Your task to perform on an android device: visit the assistant section in the google photos Image 0: 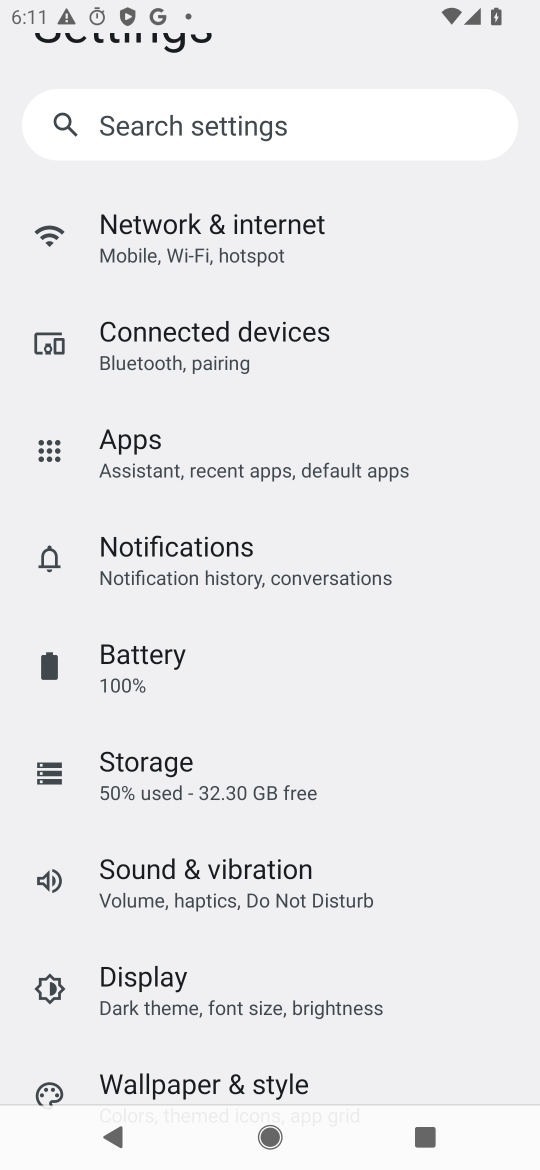
Step 0: press home button
Your task to perform on an android device: visit the assistant section in the google photos Image 1: 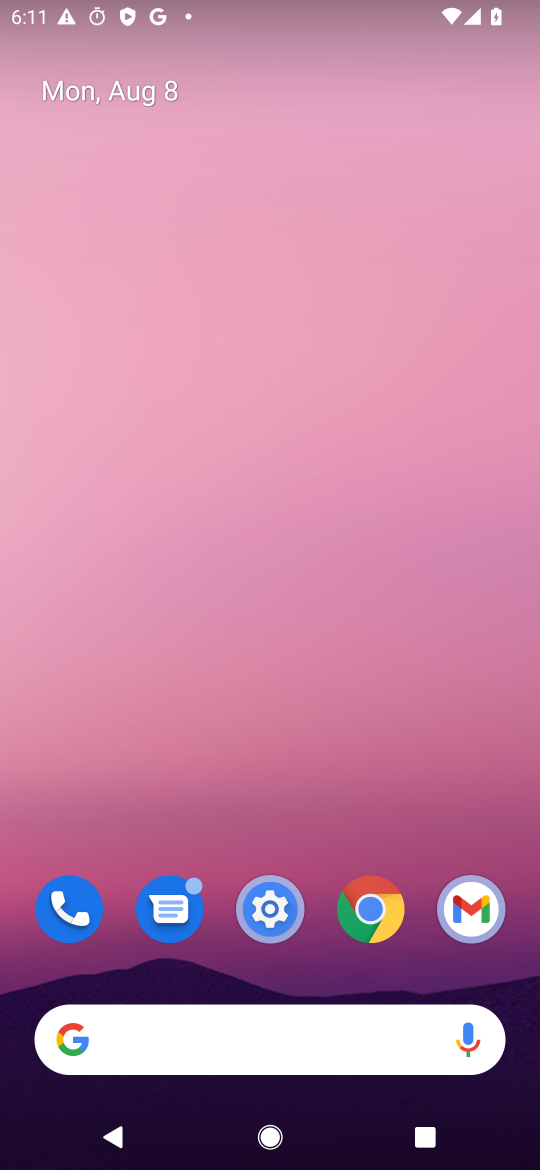
Step 1: drag from (310, 964) to (474, 255)
Your task to perform on an android device: visit the assistant section in the google photos Image 2: 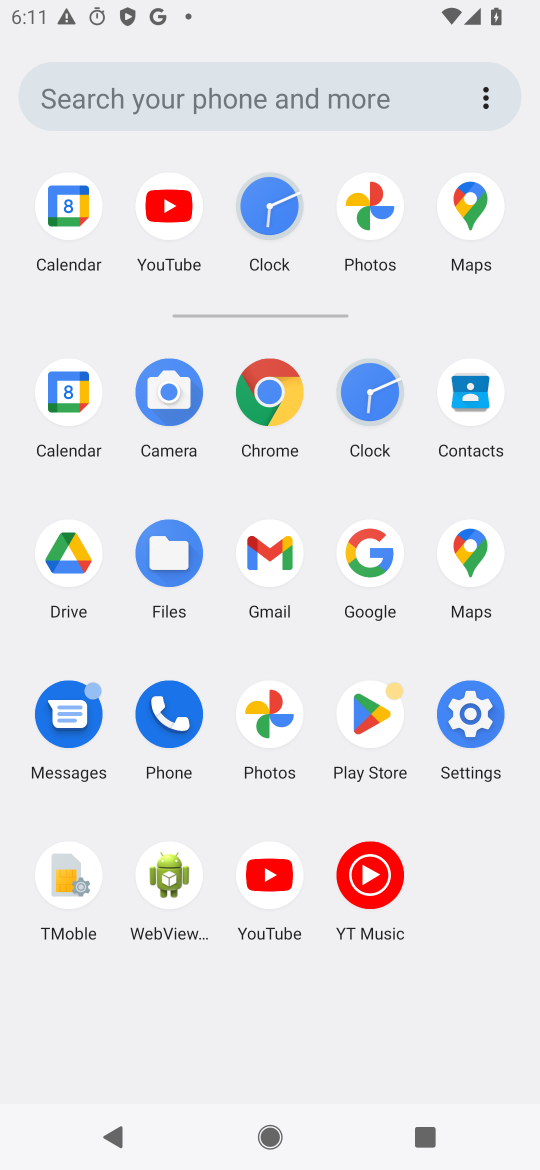
Step 2: click (269, 721)
Your task to perform on an android device: visit the assistant section in the google photos Image 3: 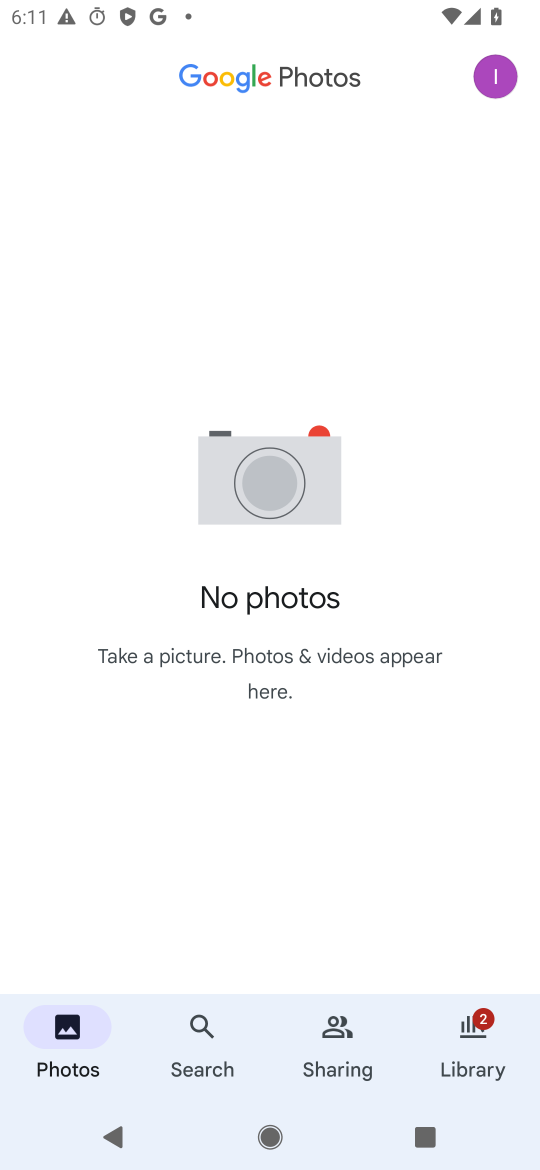
Step 3: click (475, 1050)
Your task to perform on an android device: visit the assistant section in the google photos Image 4: 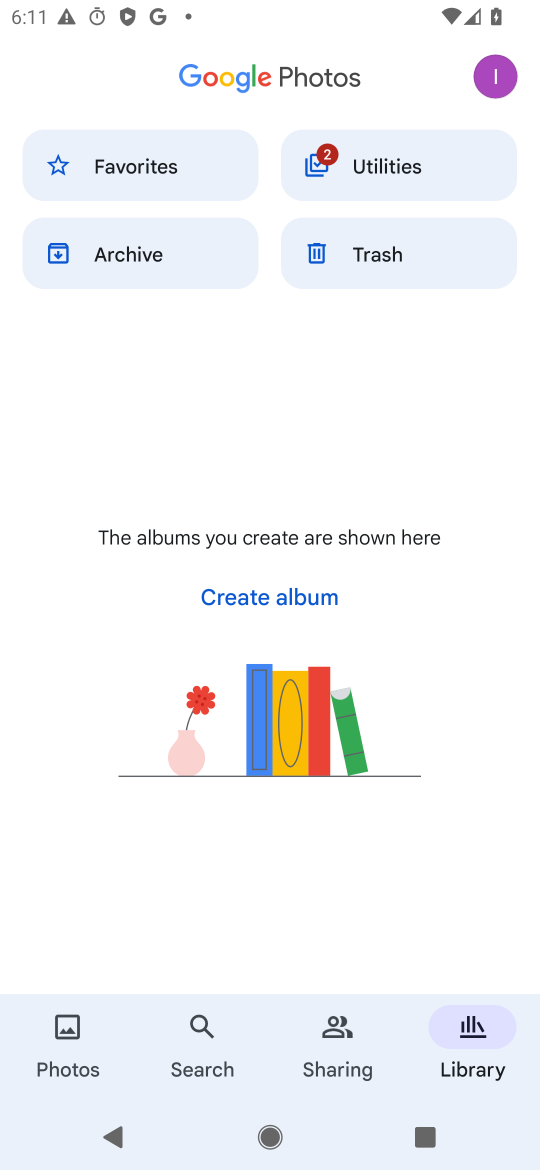
Step 4: task complete